Your task to perform on an android device: check the backup settings in the google photos Image 0: 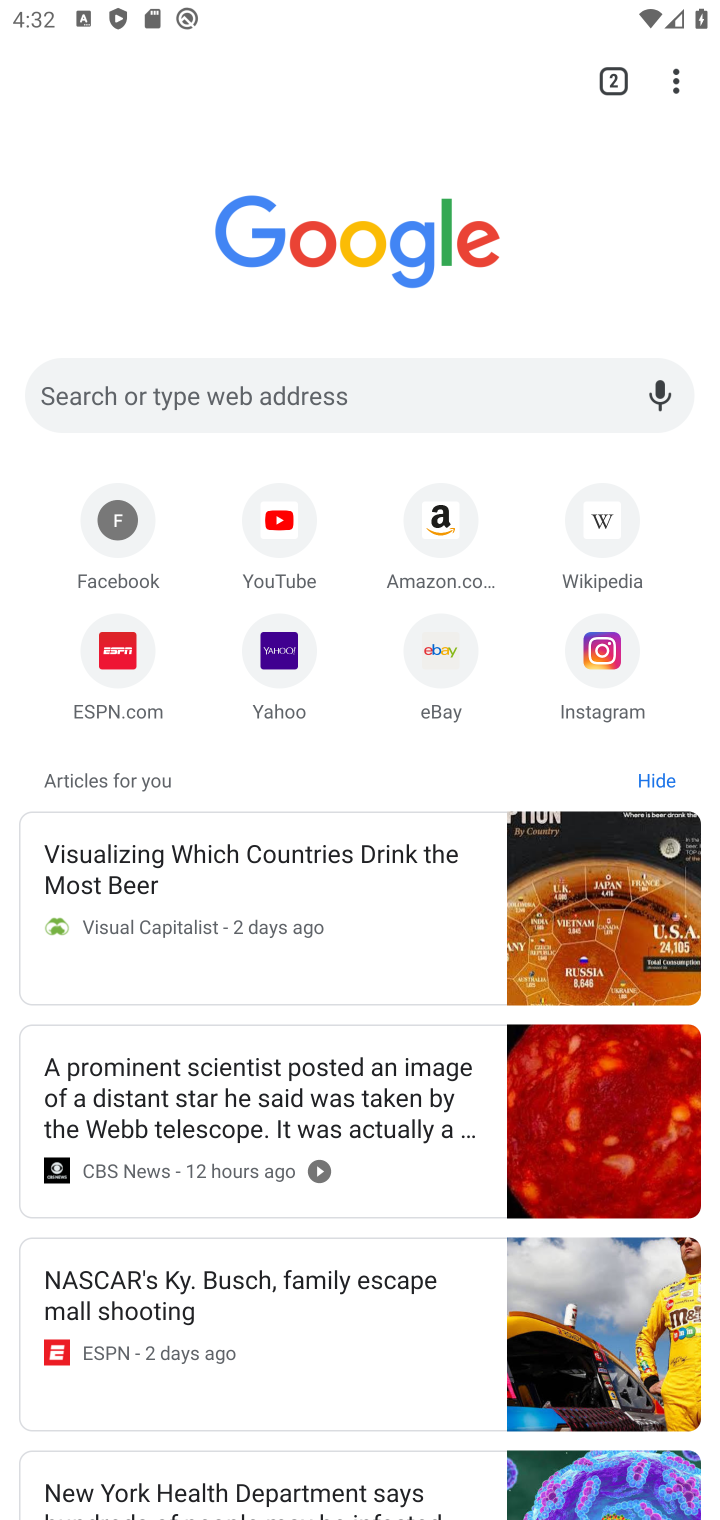
Step 0: press home button
Your task to perform on an android device: check the backup settings in the google photos Image 1: 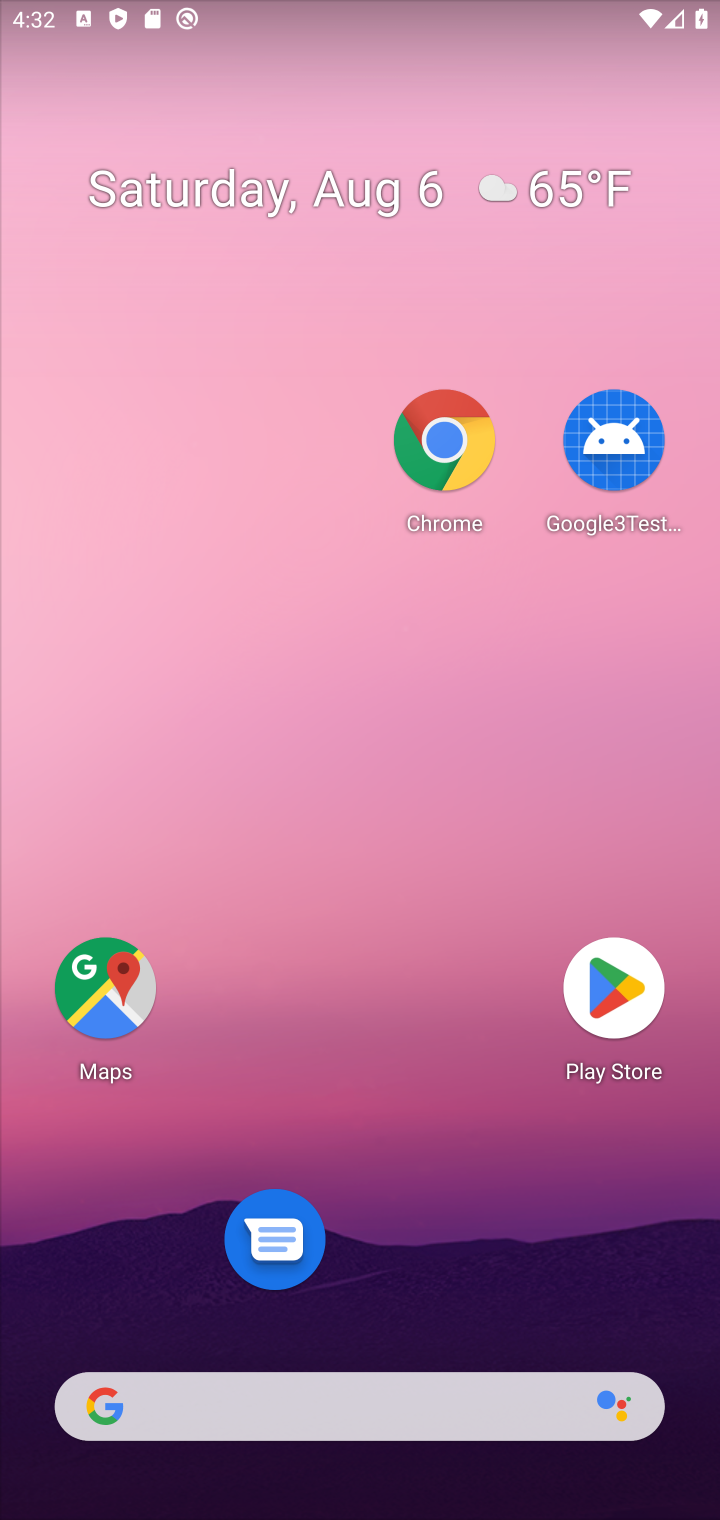
Step 1: drag from (284, 1104) to (340, 19)
Your task to perform on an android device: check the backup settings in the google photos Image 2: 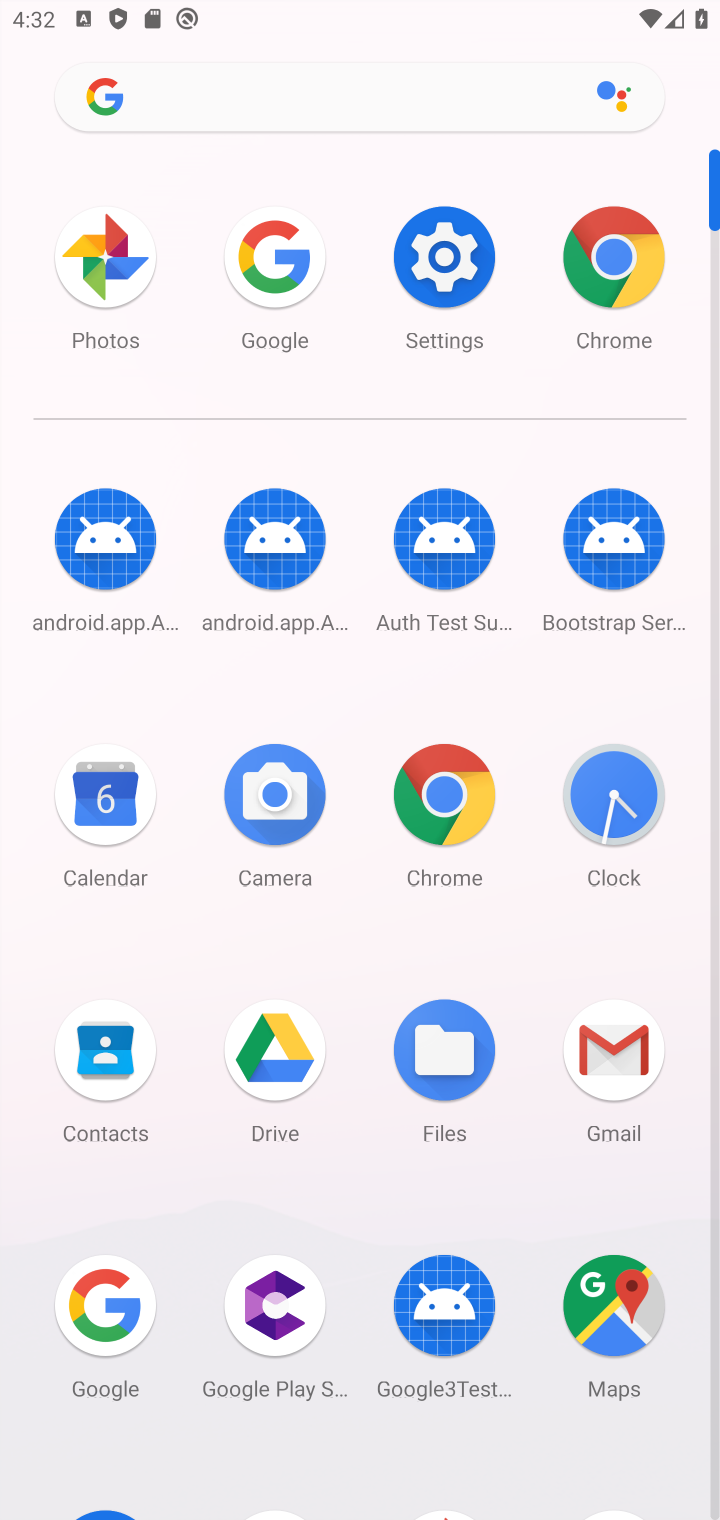
Step 2: drag from (523, 1200) to (546, 578)
Your task to perform on an android device: check the backup settings in the google photos Image 3: 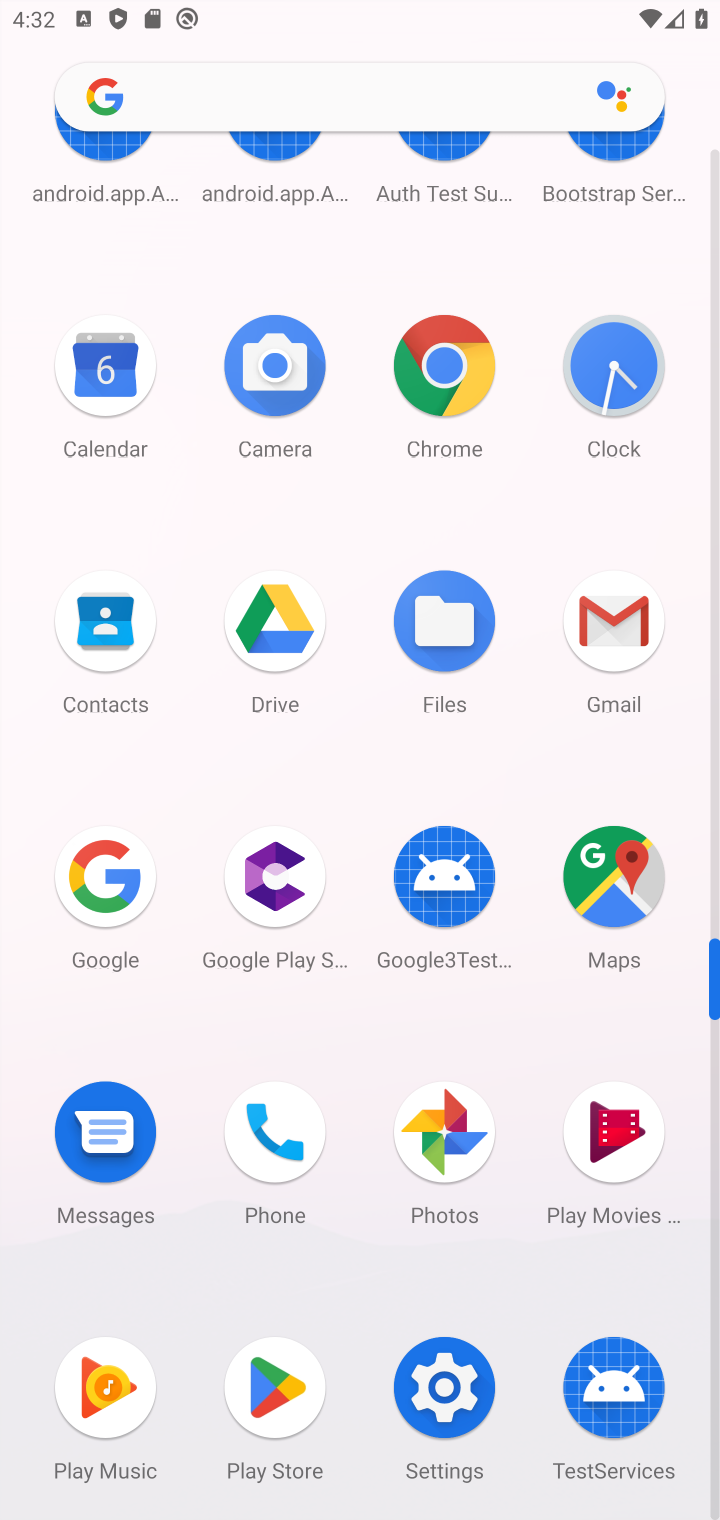
Step 3: click (435, 1151)
Your task to perform on an android device: check the backup settings in the google photos Image 4: 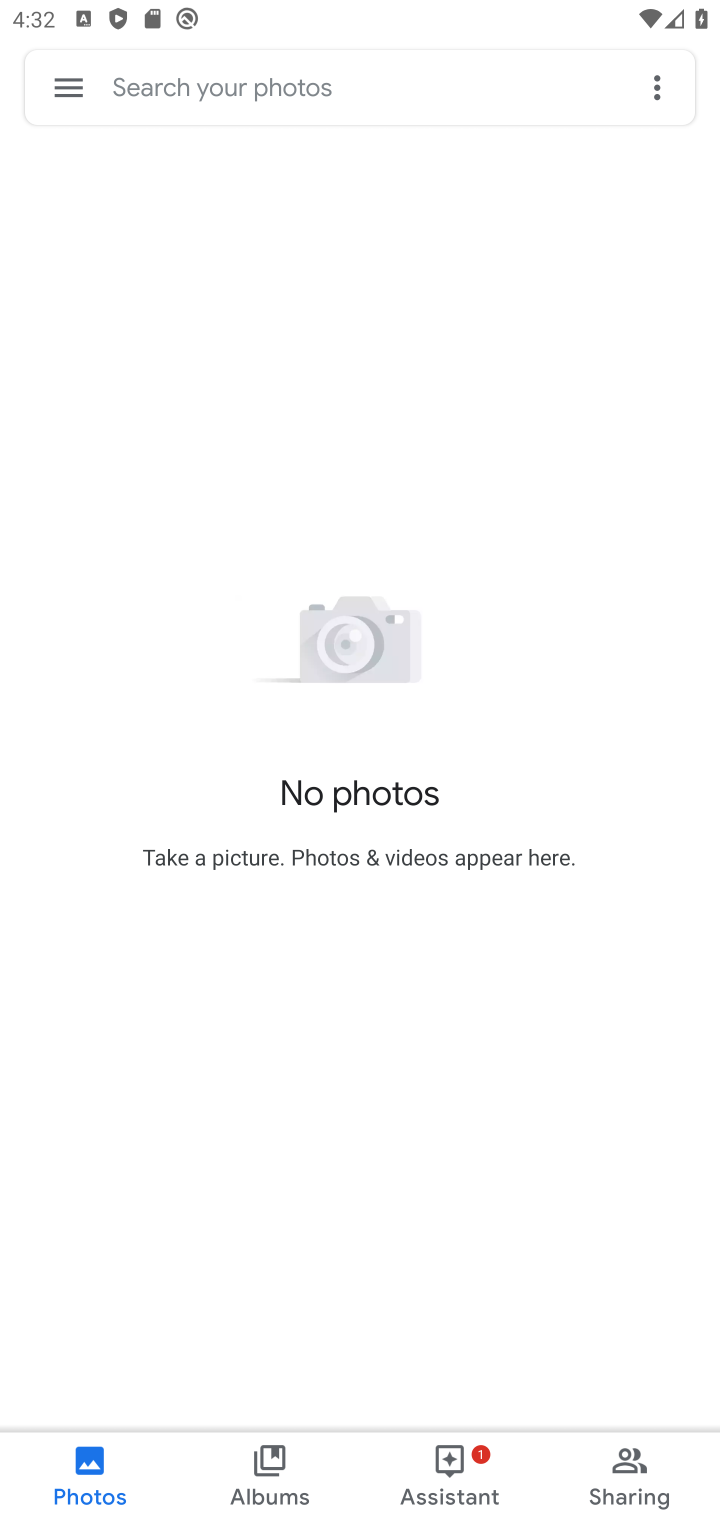
Step 4: click (73, 73)
Your task to perform on an android device: check the backup settings in the google photos Image 5: 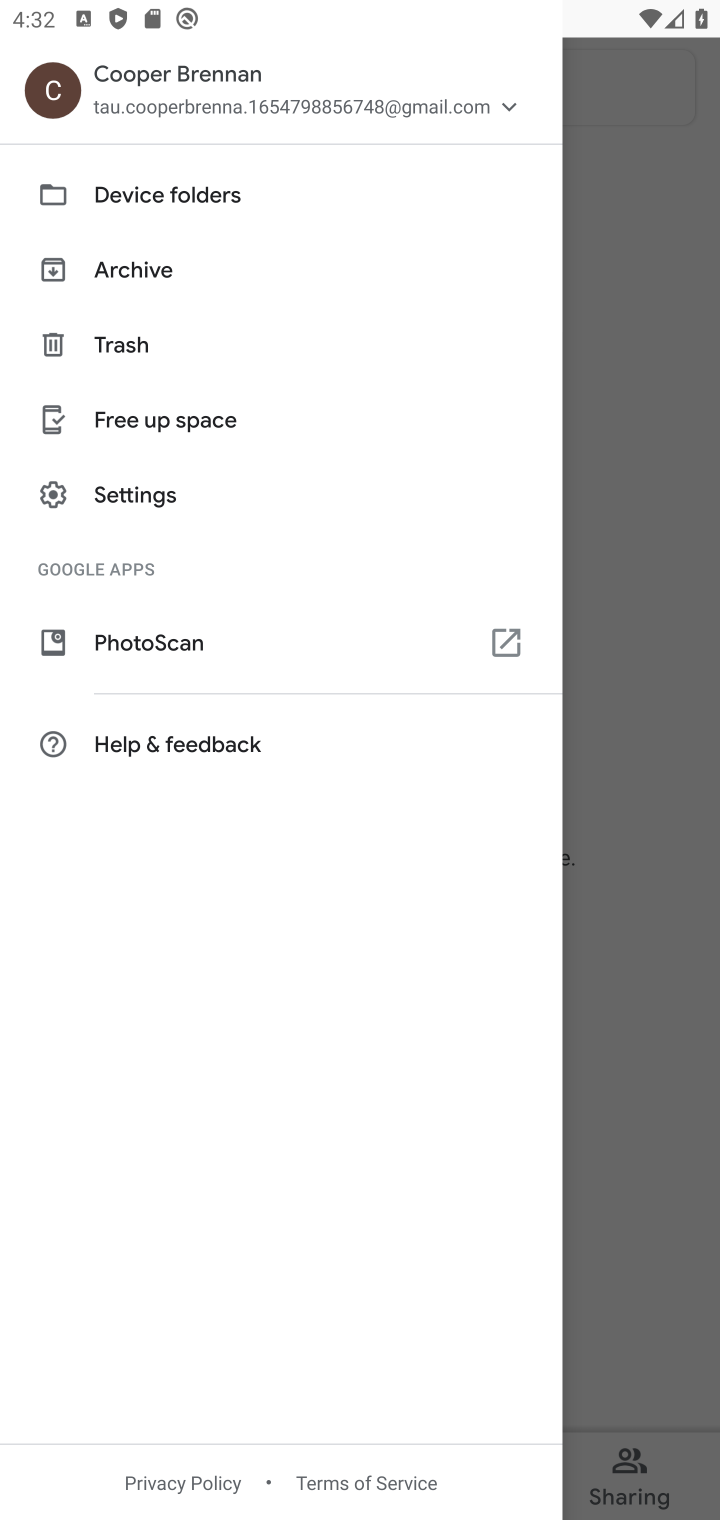
Step 5: click (149, 487)
Your task to perform on an android device: check the backup settings in the google photos Image 6: 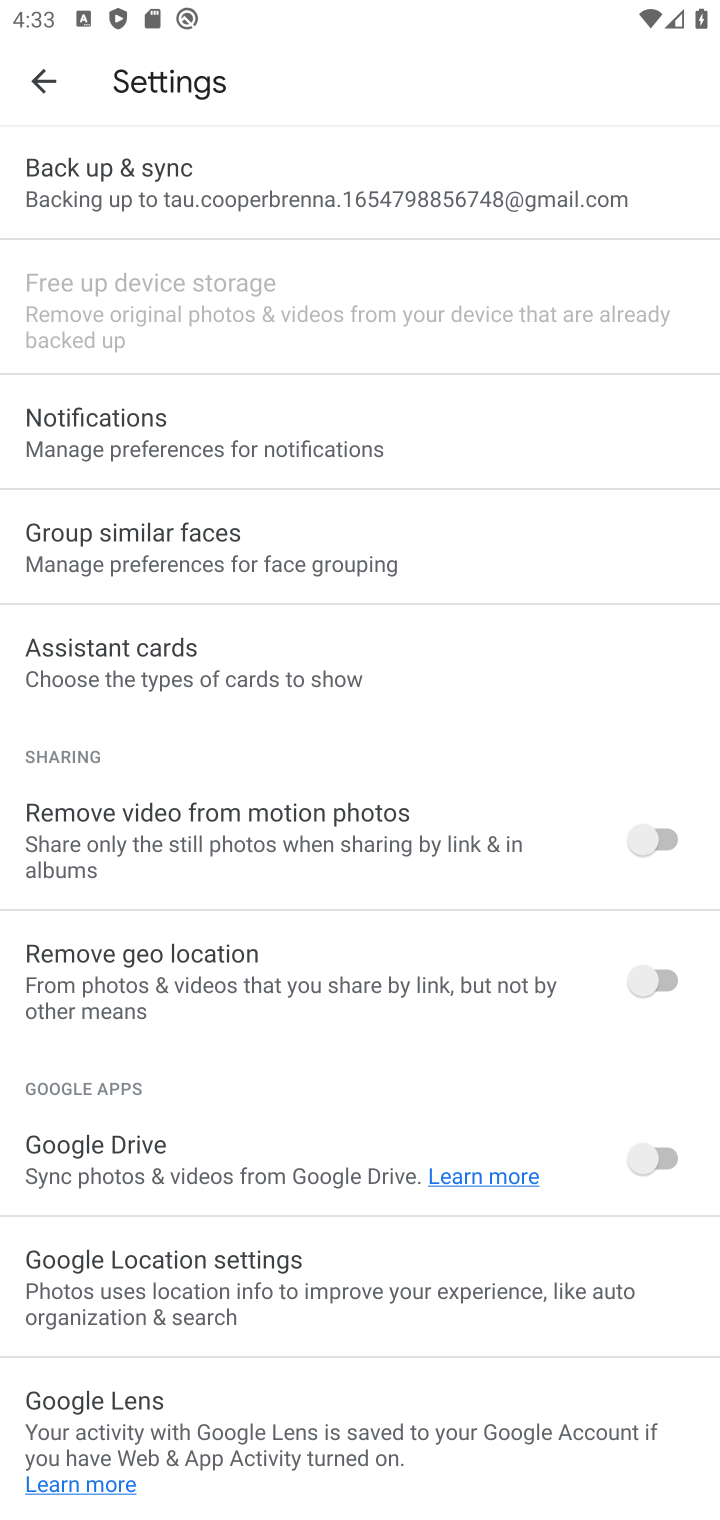
Step 6: task complete